Your task to perform on an android device: Open my contact list Image 0: 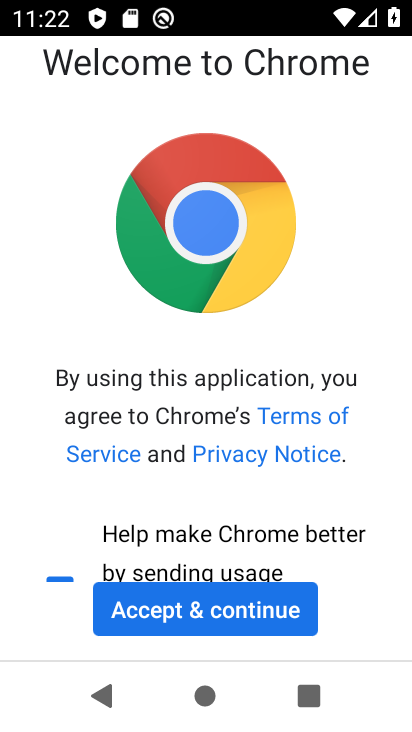
Step 0: press home button
Your task to perform on an android device: Open my contact list Image 1: 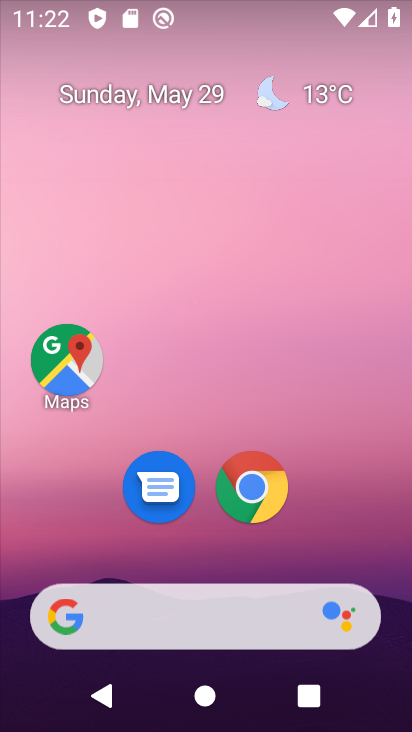
Step 1: drag from (399, 544) to (371, 204)
Your task to perform on an android device: Open my contact list Image 2: 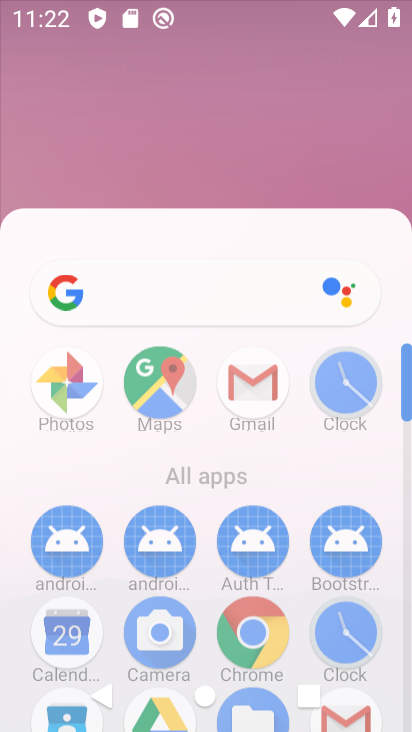
Step 2: drag from (373, 183) to (388, 106)
Your task to perform on an android device: Open my contact list Image 3: 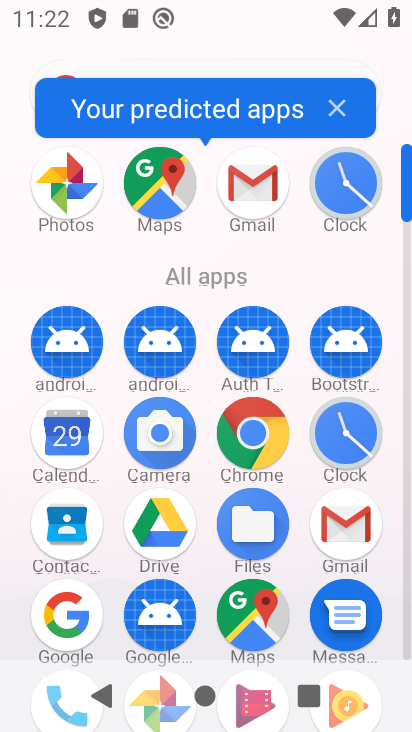
Step 3: click (68, 536)
Your task to perform on an android device: Open my contact list Image 4: 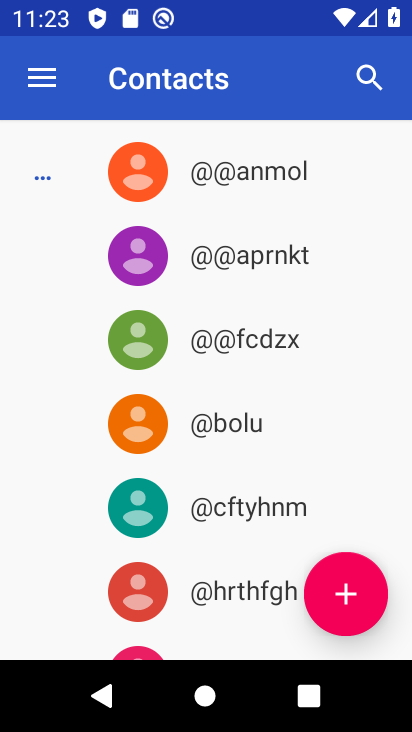
Step 4: task complete